Your task to perform on an android device: turn on showing notifications on the lock screen Image 0: 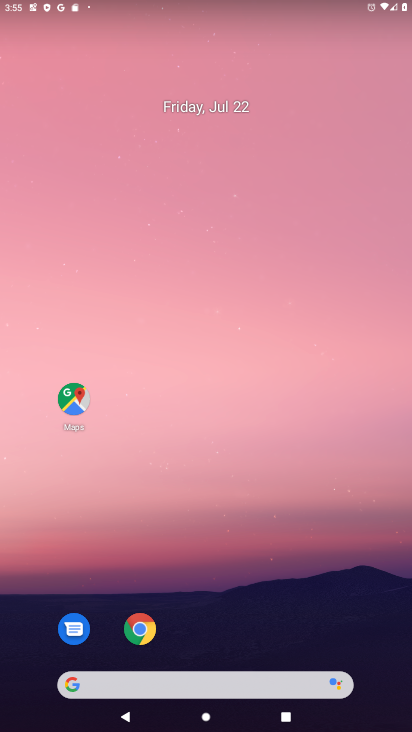
Step 0: drag from (192, 614) to (318, 78)
Your task to perform on an android device: turn on showing notifications on the lock screen Image 1: 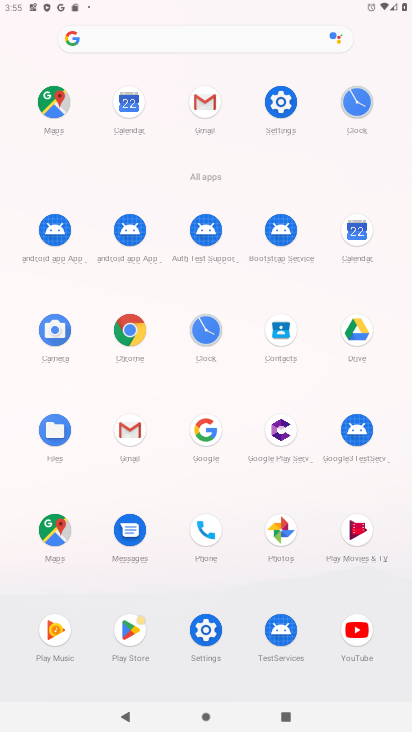
Step 1: click (292, 125)
Your task to perform on an android device: turn on showing notifications on the lock screen Image 2: 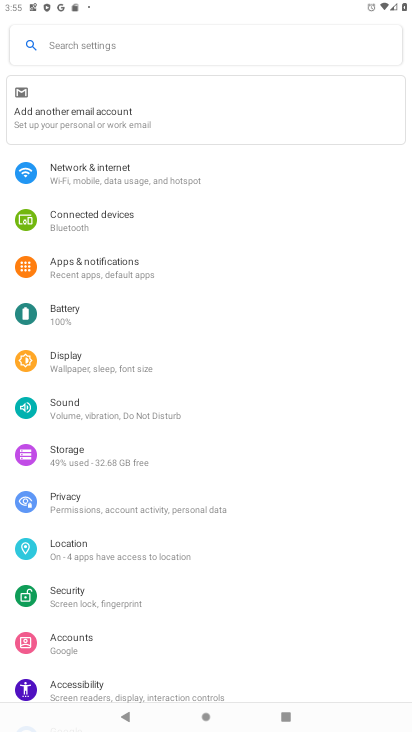
Step 2: click (130, 272)
Your task to perform on an android device: turn on showing notifications on the lock screen Image 3: 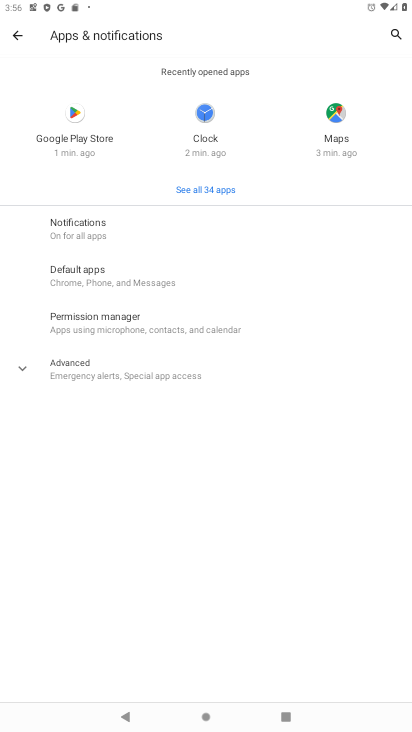
Step 3: click (73, 238)
Your task to perform on an android device: turn on showing notifications on the lock screen Image 4: 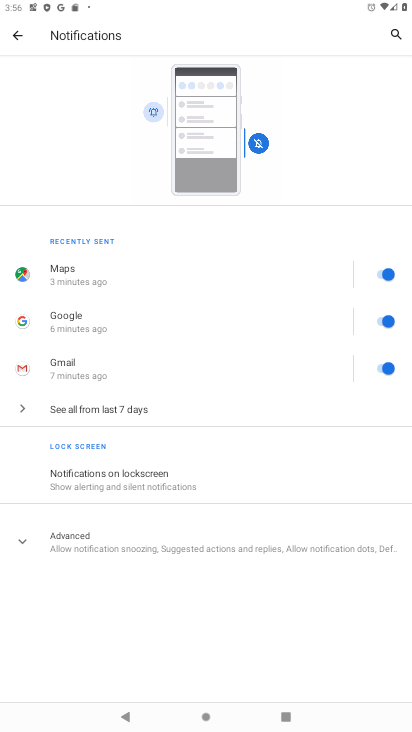
Step 4: click (208, 475)
Your task to perform on an android device: turn on showing notifications on the lock screen Image 5: 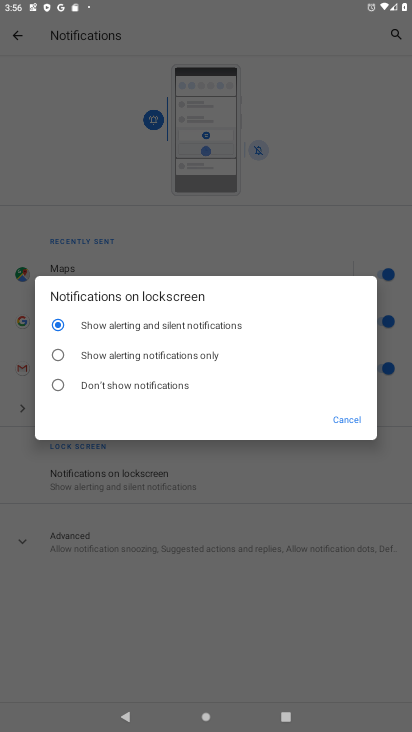
Step 5: task complete